Your task to perform on an android device: show emergency info Image 0: 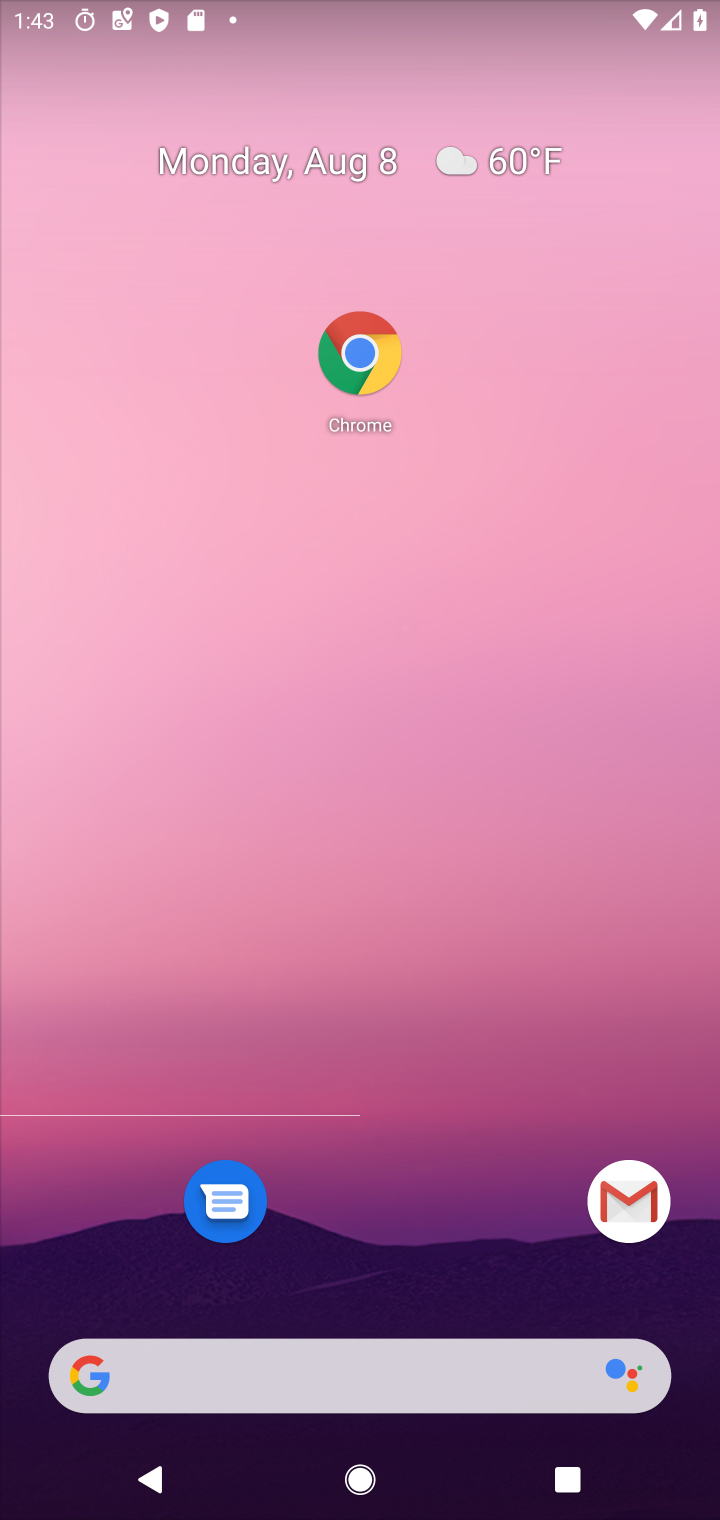
Step 0: drag from (501, 1416) to (555, 453)
Your task to perform on an android device: show emergency info Image 1: 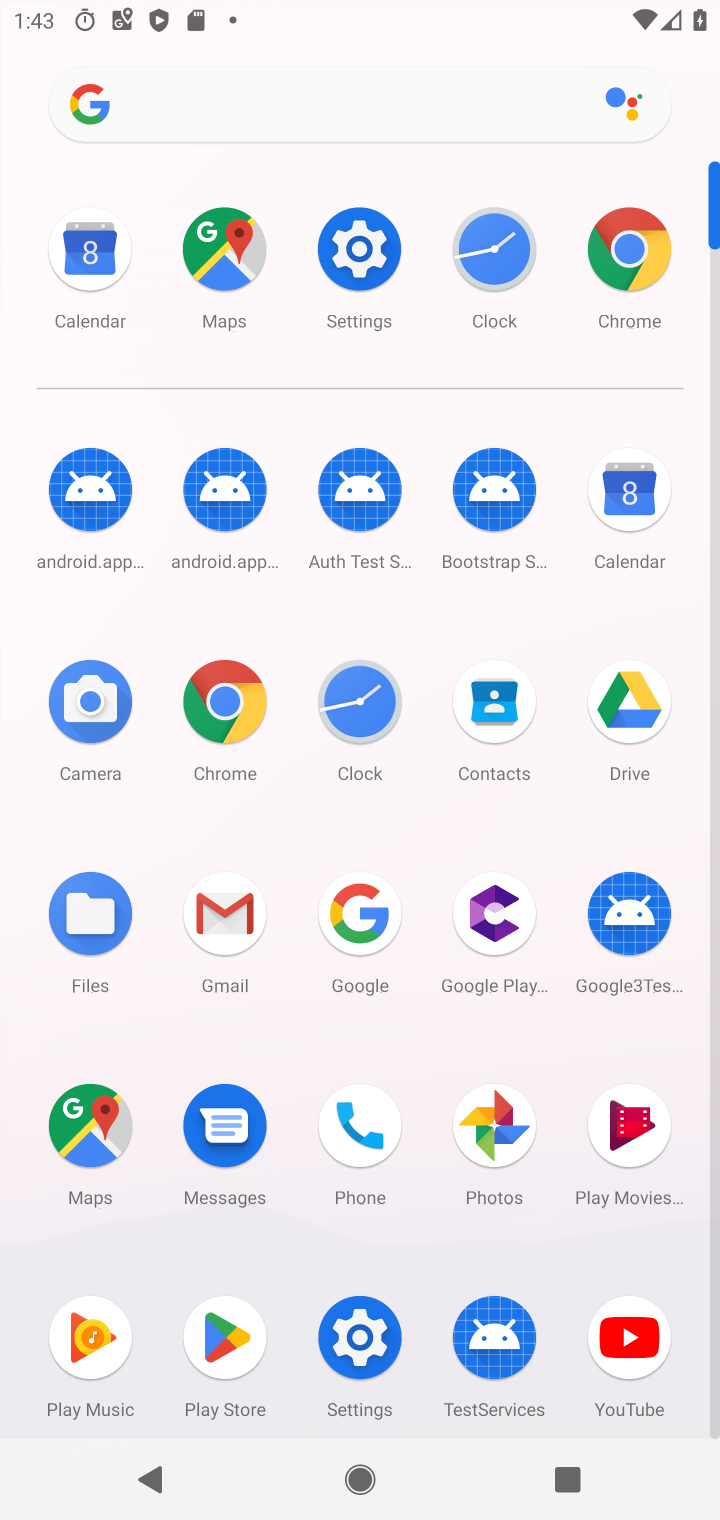
Step 1: click (343, 1318)
Your task to perform on an android device: show emergency info Image 2: 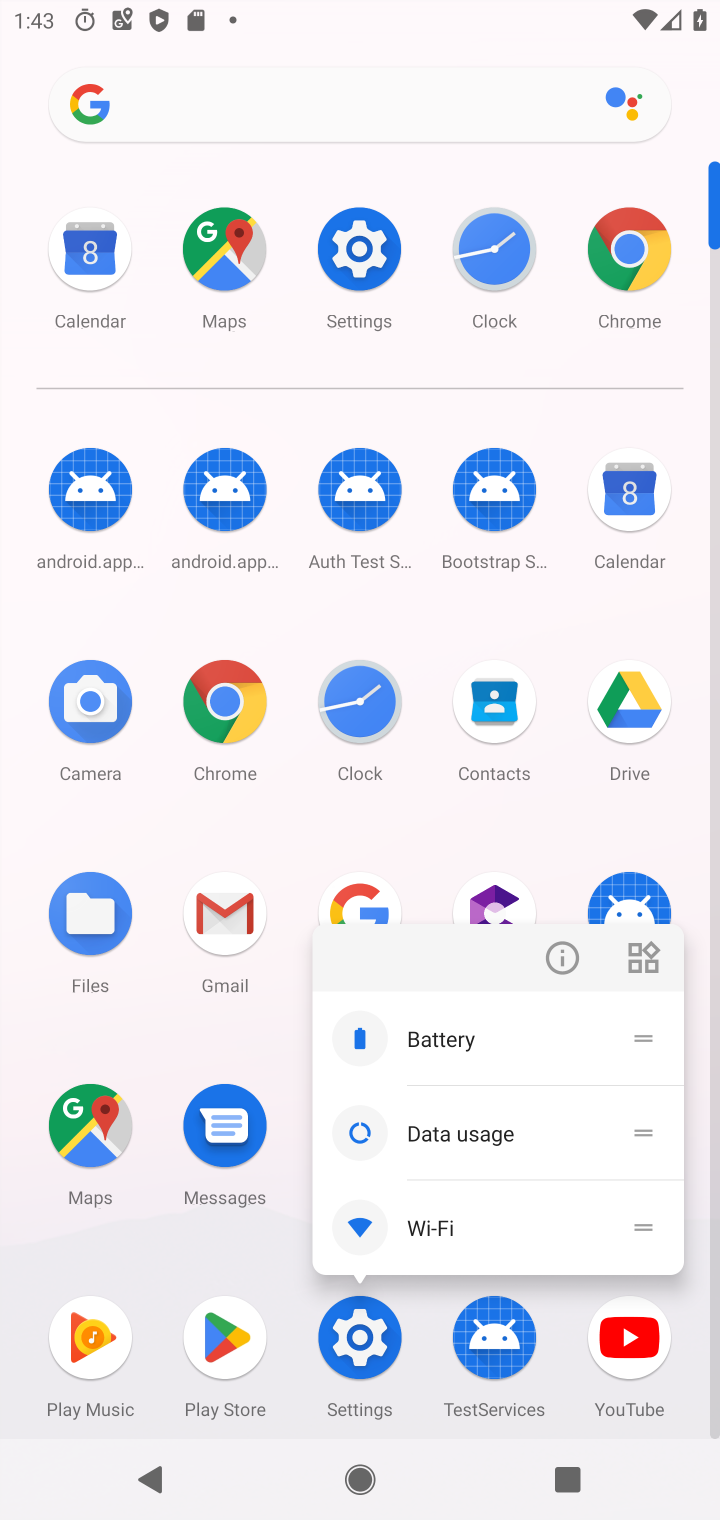
Step 2: click (361, 1335)
Your task to perform on an android device: show emergency info Image 3: 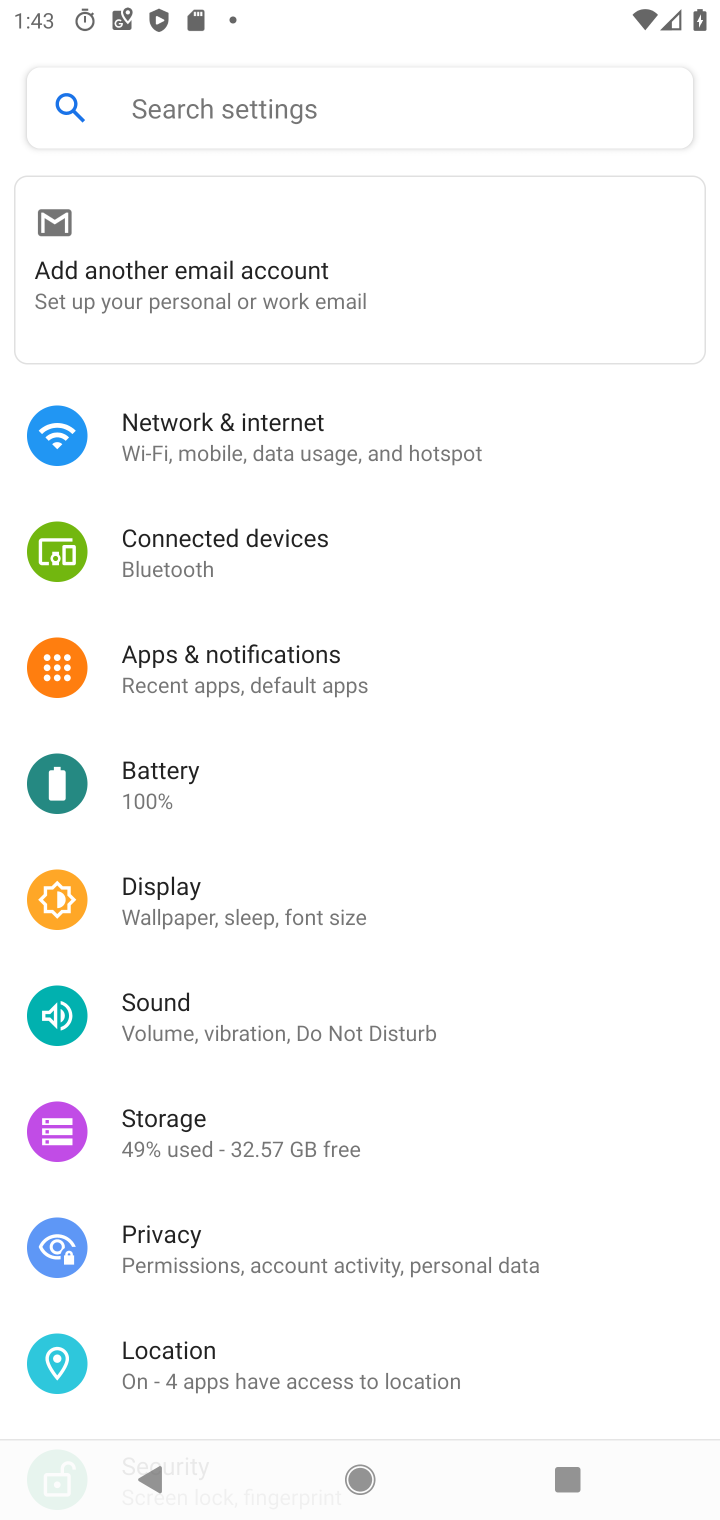
Step 3: click (183, 88)
Your task to perform on an android device: show emergency info Image 4: 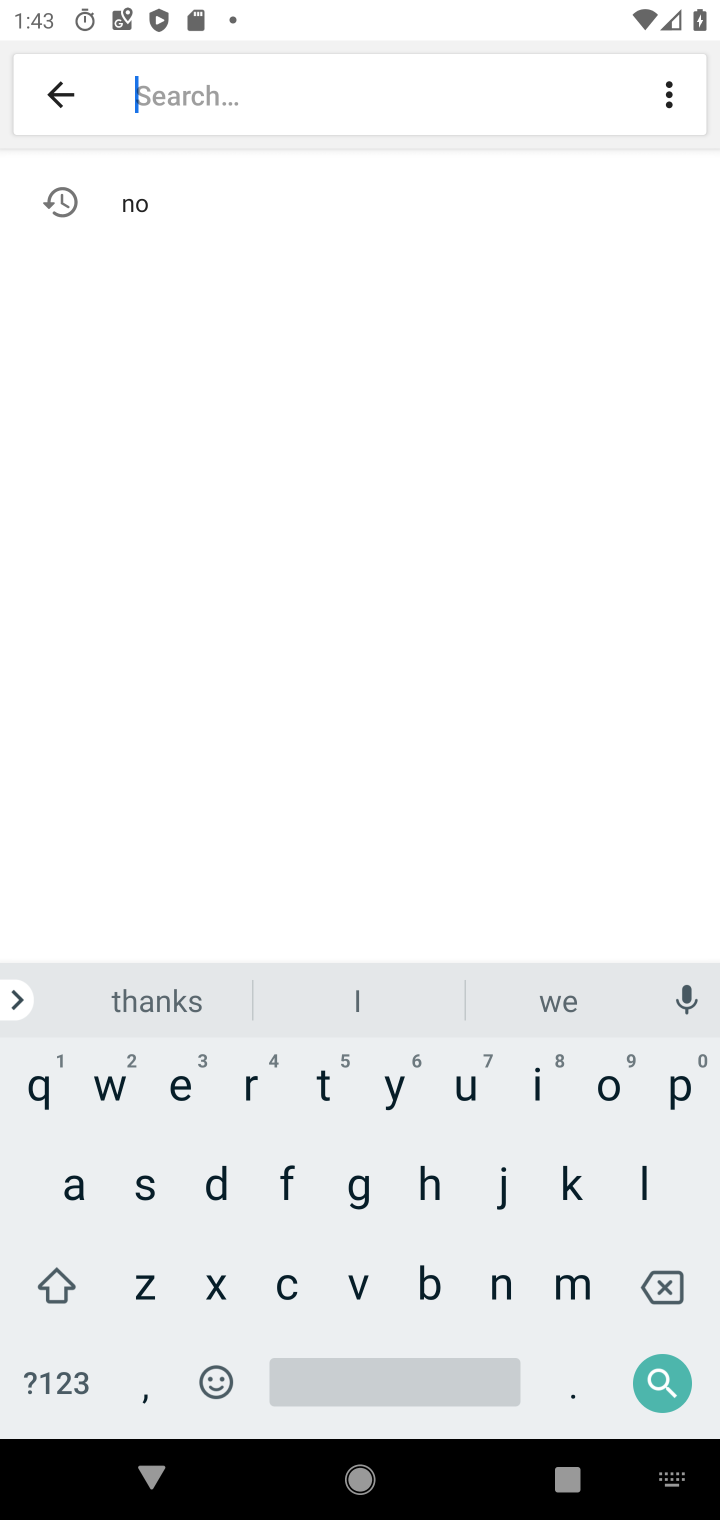
Step 4: click (172, 1083)
Your task to perform on an android device: show emergency info Image 5: 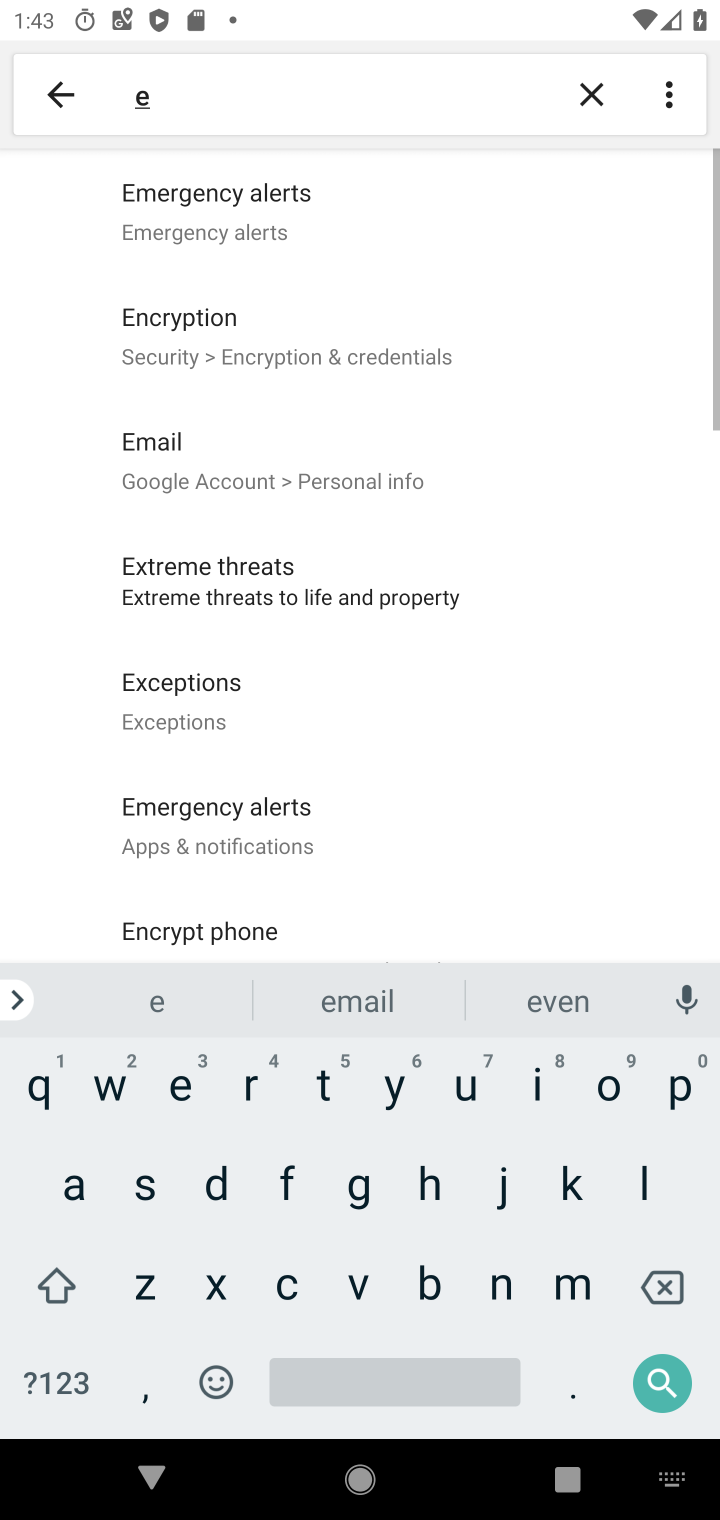
Step 5: click (576, 1287)
Your task to perform on an android device: show emergency info Image 6: 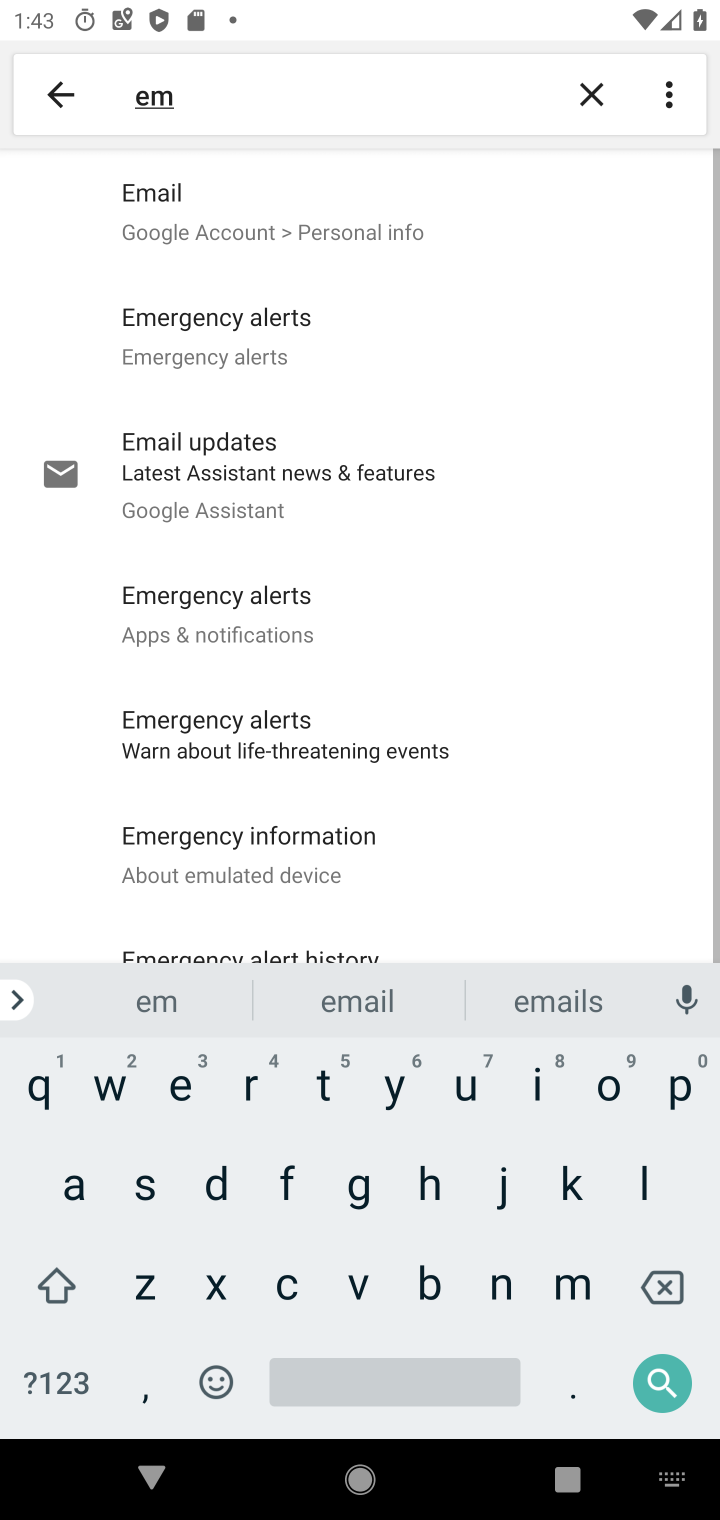
Step 6: click (181, 1102)
Your task to perform on an android device: show emergency info Image 7: 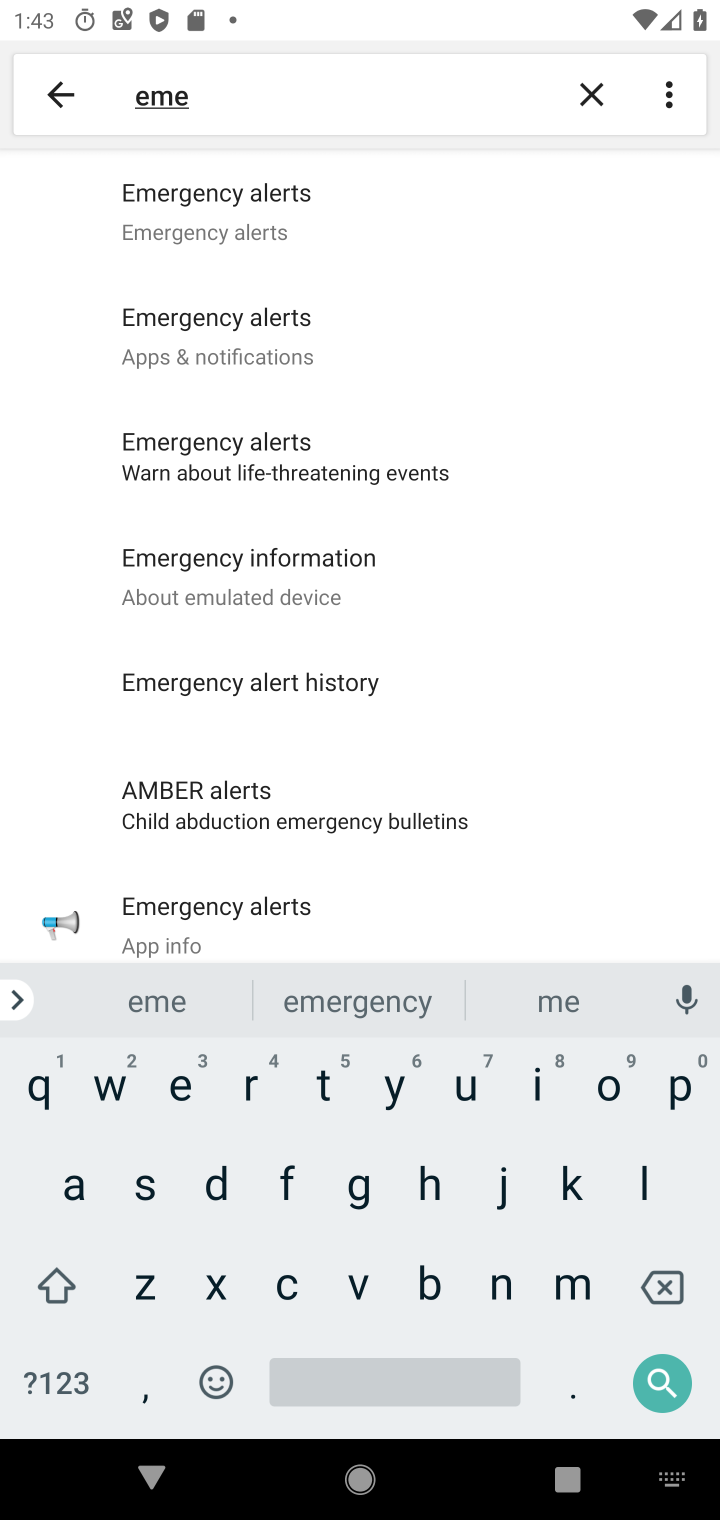
Step 7: click (330, 1004)
Your task to perform on an android device: show emergency info Image 8: 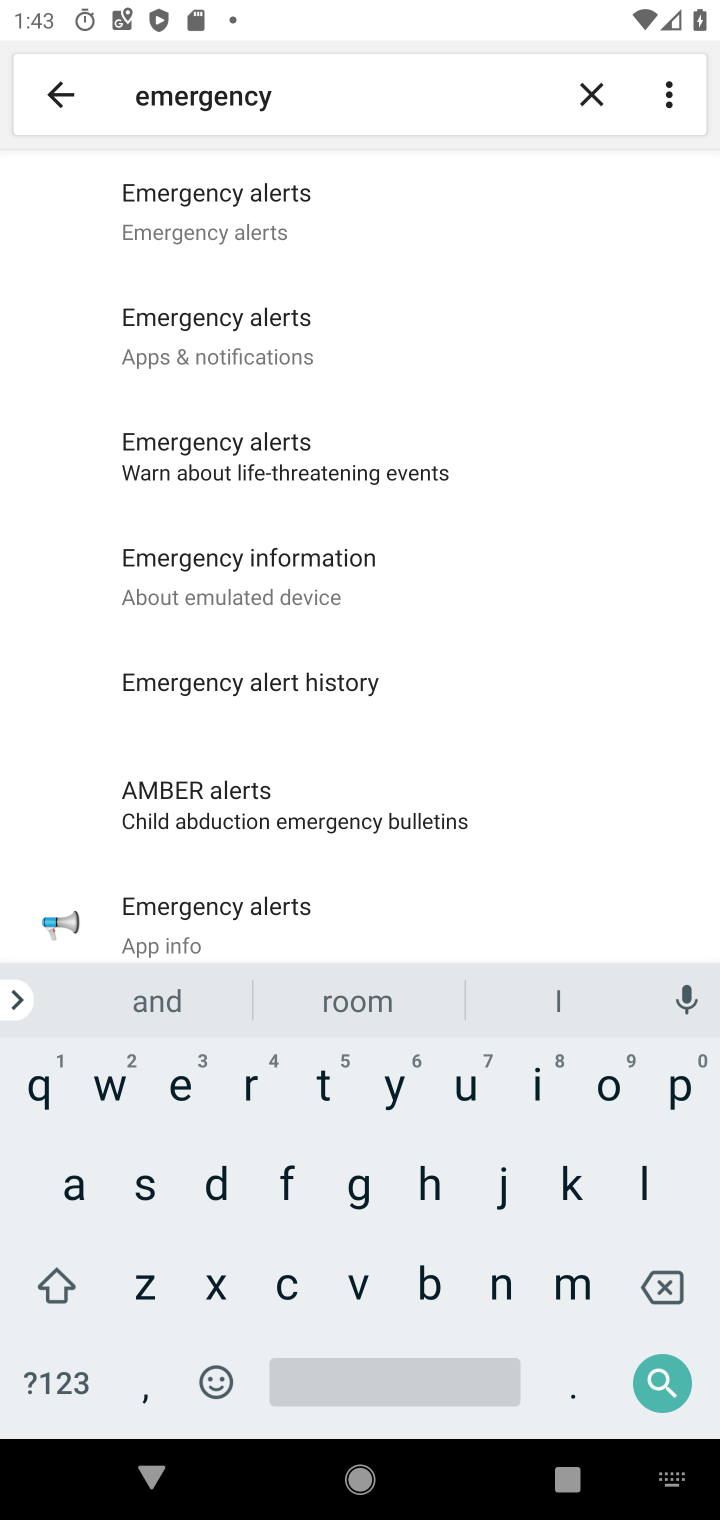
Step 8: click (532, 1101)
Your task to perform on an android device: show emergency info Image 9: 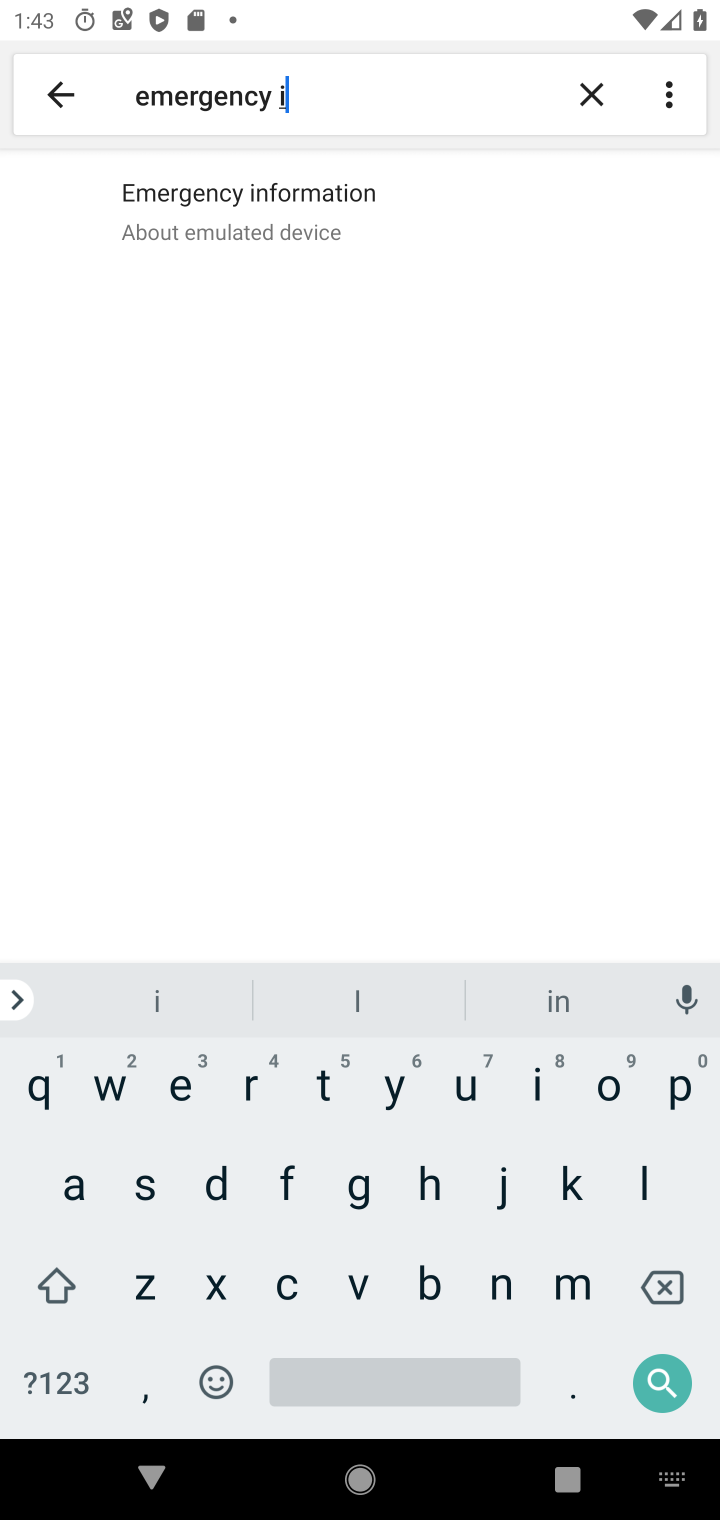
Step 9: click (292, 209)
Your task to perform on an android device: show emergency info Image 10: 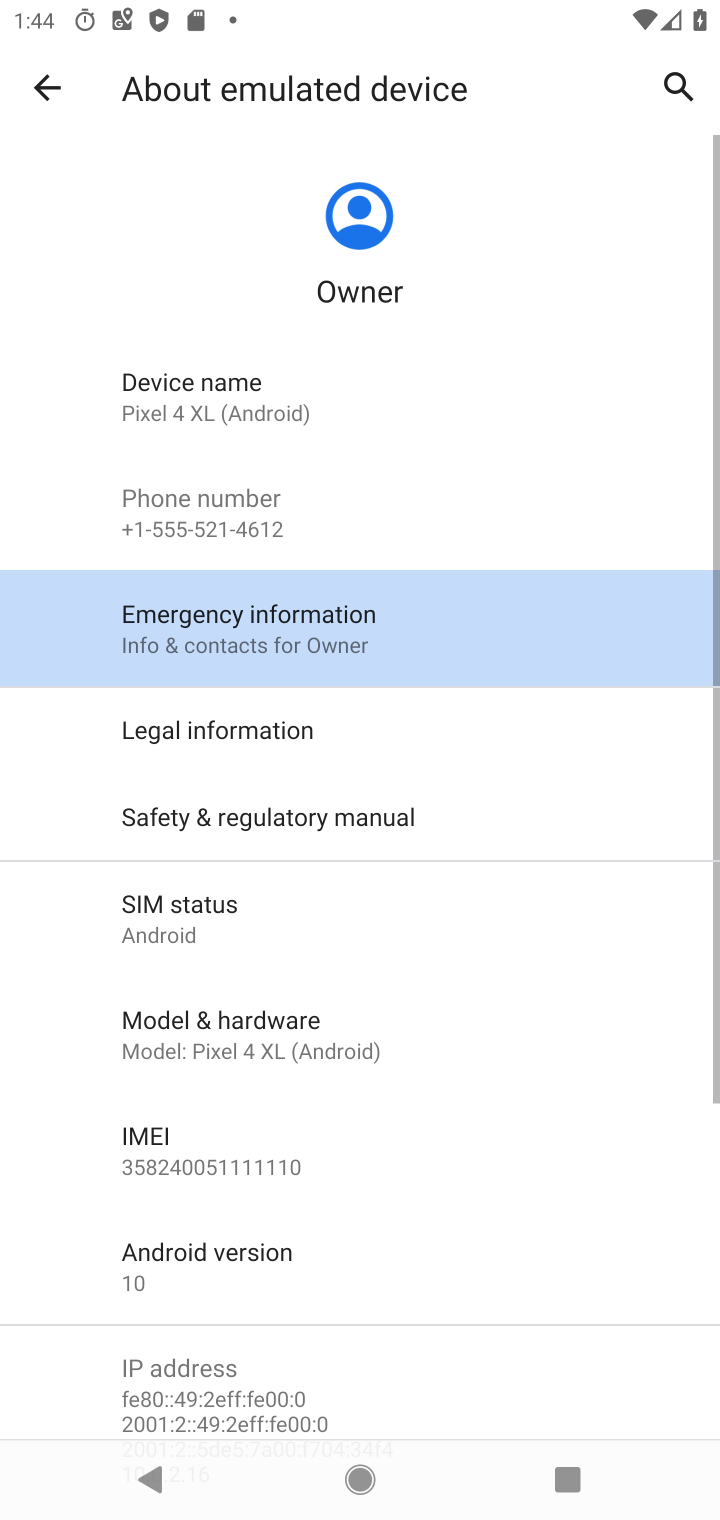
Step 10: click (182, 621)
Your task to perform on an android device: show emergency info Image 11: 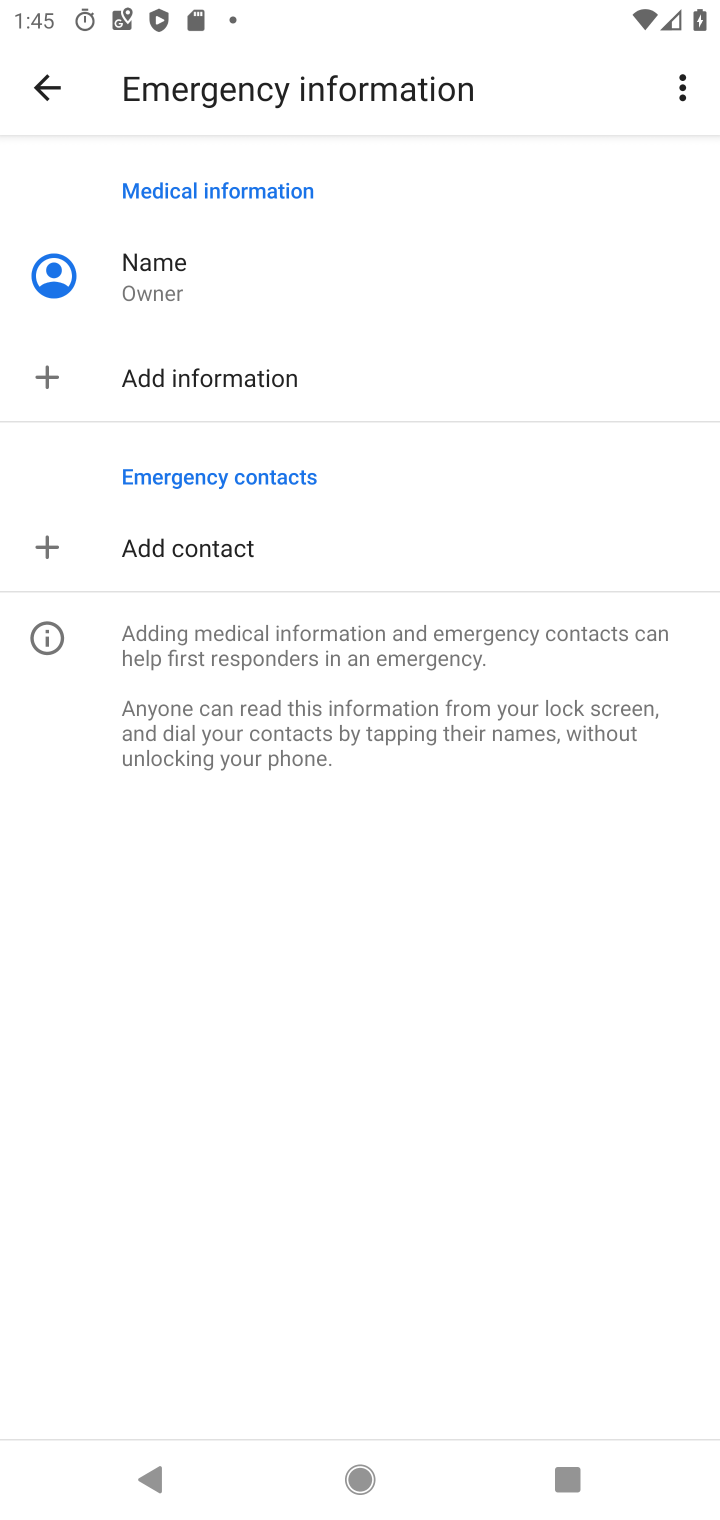
Step 11: task complete